Your task to perform on an android device: Open maps Image 0: 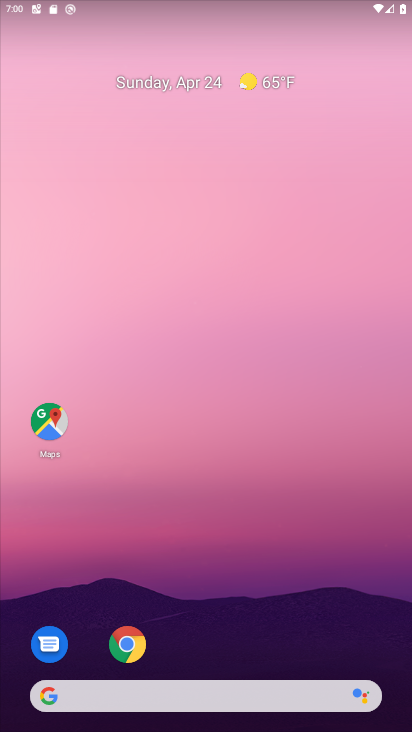
Step 0: drag from (202, 659) to (214, 46)
Your task to perform on an android device: Open maps Image 1: 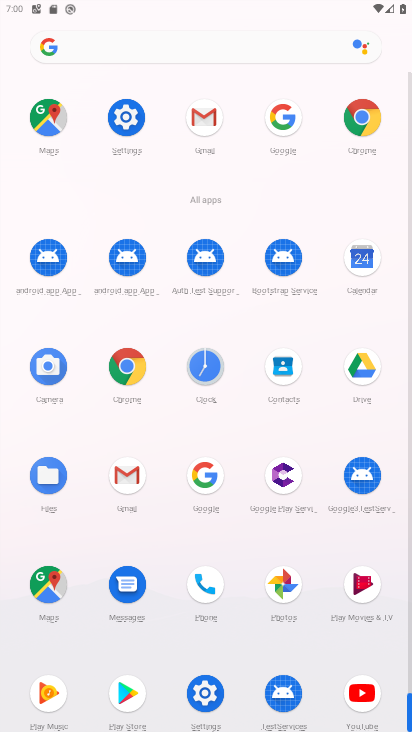
Step 1: click (44, 580)
Your task to perform on an android device: Open maps Image 2: 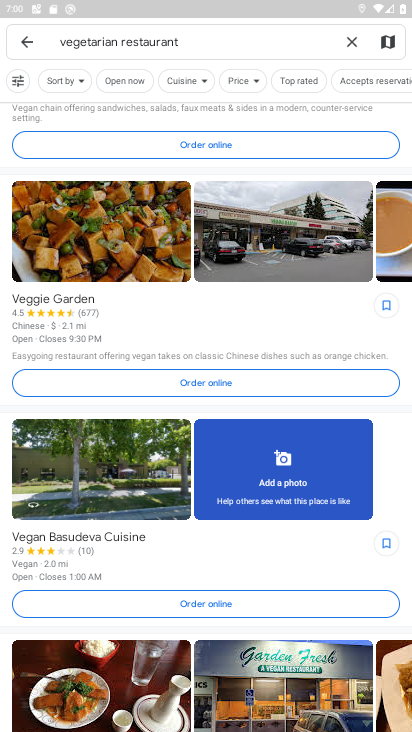
Step 2: click (29, 44)
Your task to perform on an android device: Open maps Image 3: 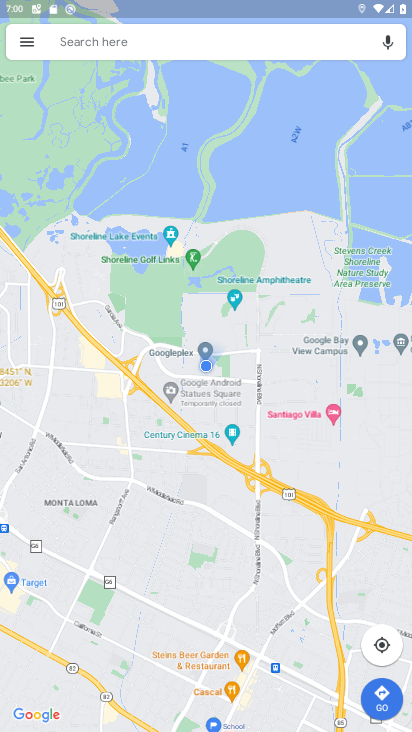
Step 3: drag from (200, 493) to (236, 257)
Your task to perform on an android device: Open maps Image 4: 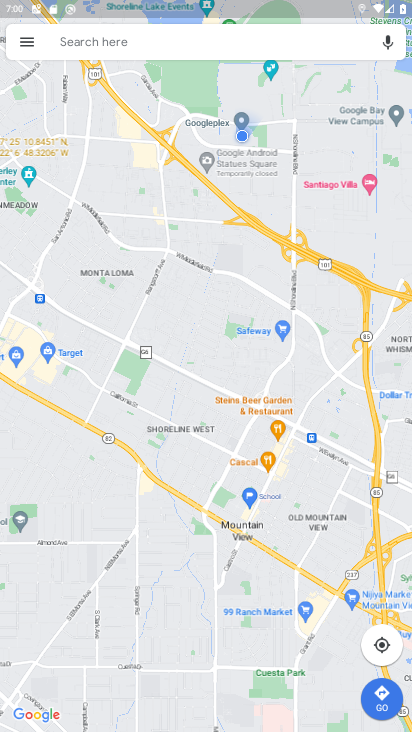
Step 4: click (27, 37)
Your task to perform on an android device: Open maps Image 5: 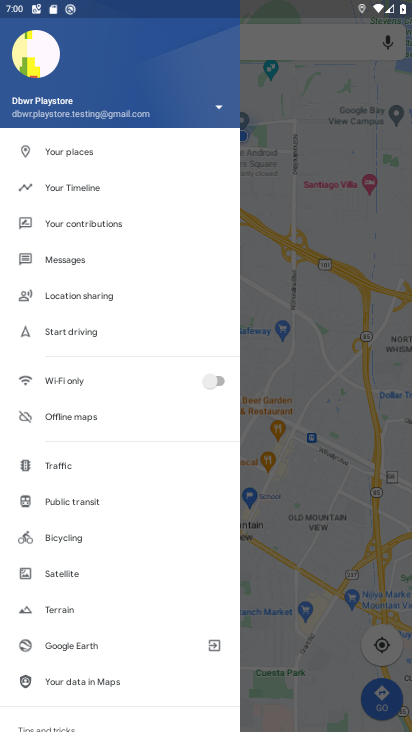
Step 5: task complete